Your task to perform on an android device: Go to Yahoo.com Image 0: 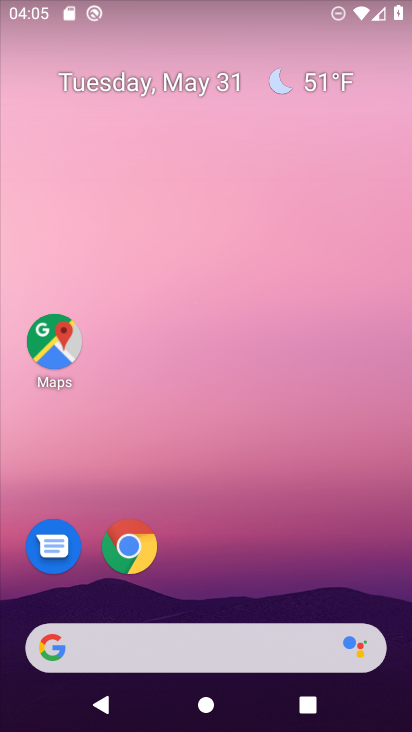
Step 0: click (123, 563)
Your task to perform on an android device: Go to Yahoo.com Image 1: 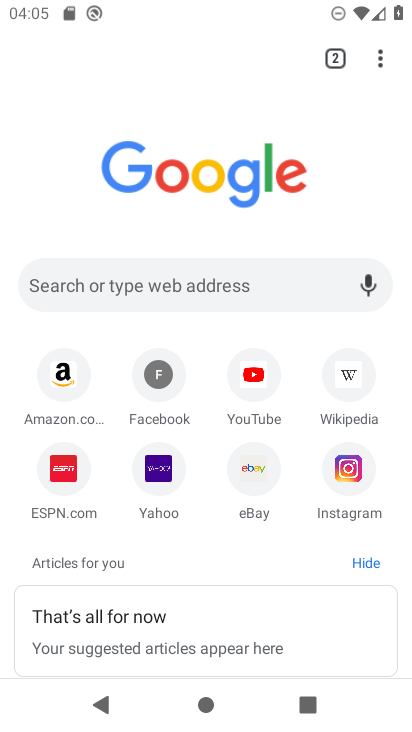
Step 1: click (163, 504)
Your task to perform on an android device: Go to Yahoo.com Image 2: 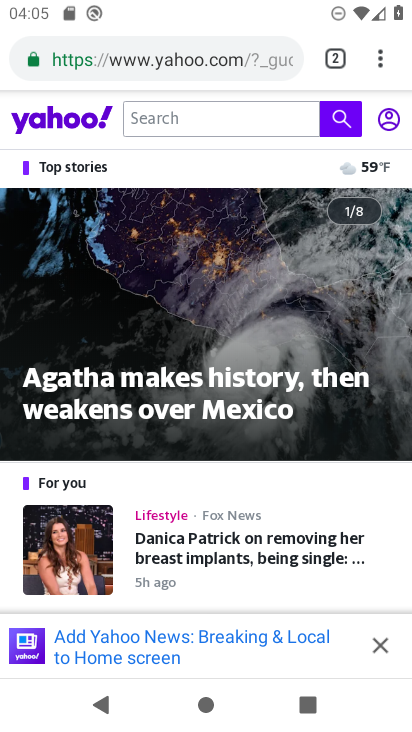
Step 2: task complete